Your task to perform on an android device: add a contact Image 0: 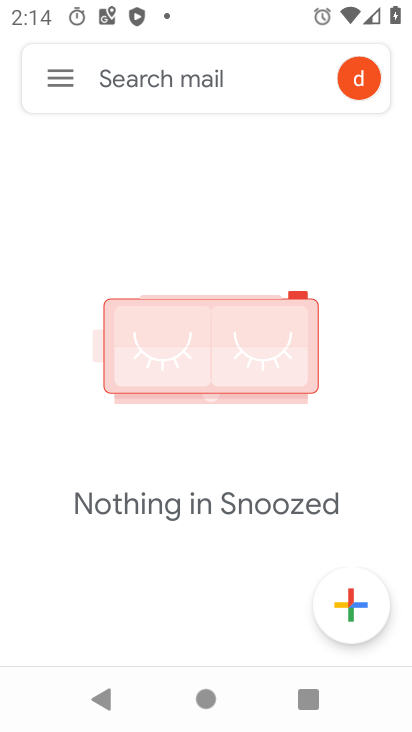
Step 0: press home button
Your task to perform on an android device: add a contact Image 1: 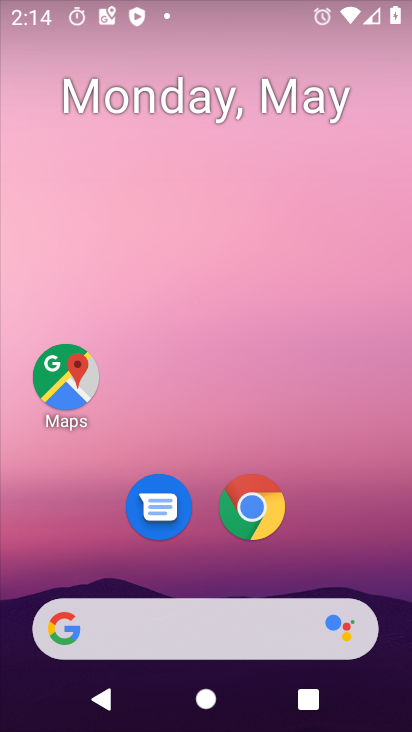
Step 1: drag from (238, 627) to (246, 60)
Your task to perform on an android device: add a contact Image 2: 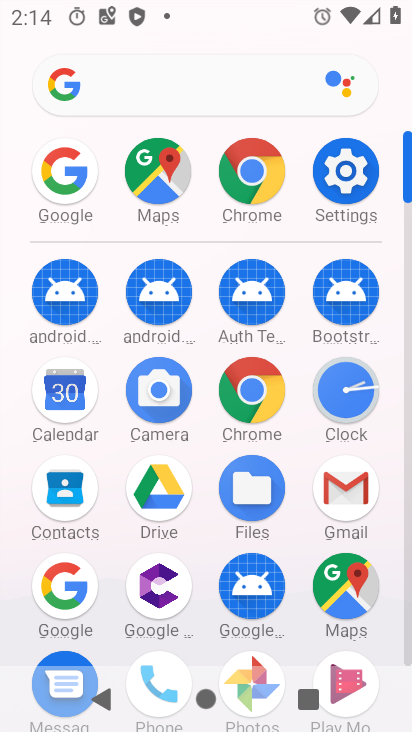
Step 2: click (70, 495)
Your task to perform on an android device: add a contact Image 3: 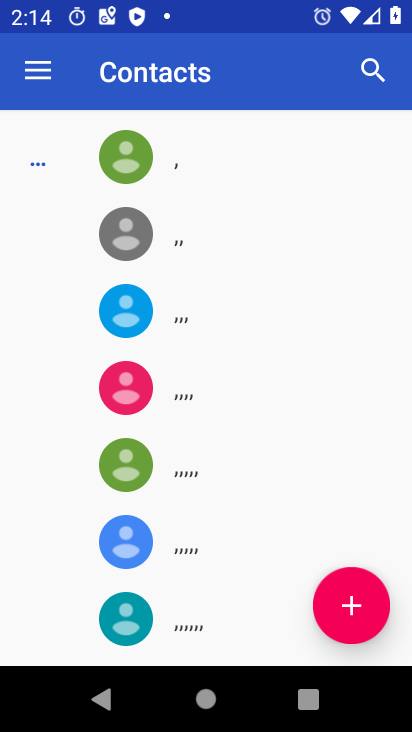
Step 3: click (355, 609)
Your task to perform on an android device: add a contact Image 4: 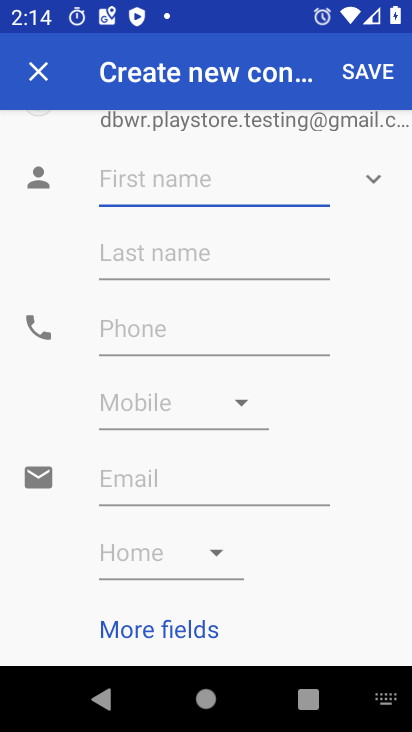
Step 4: type "maharana prtap"
Your task to perform on an android device: add a contact Image 5: 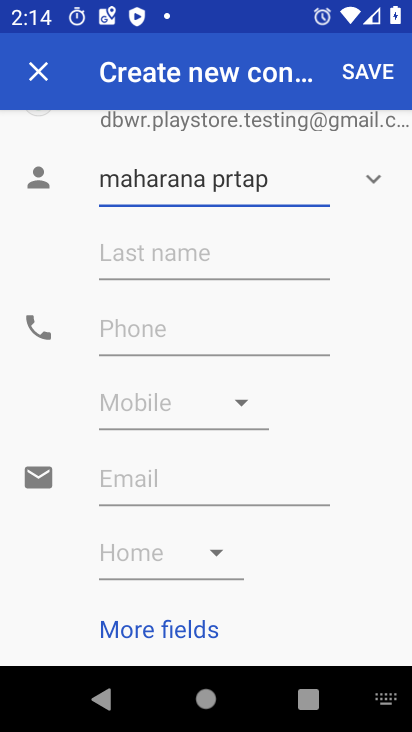
Step 5: click (185, 337)
Your task to perform on an android device: add a contact Image 6: 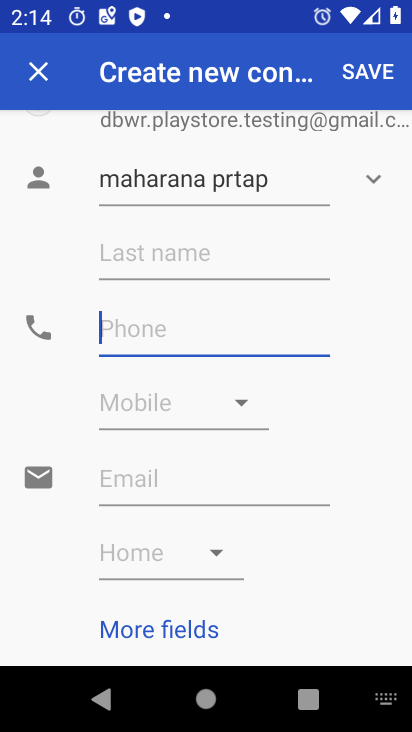
Step 6: type "22222"
Your task to perform on an android device: add a contact Image 7: 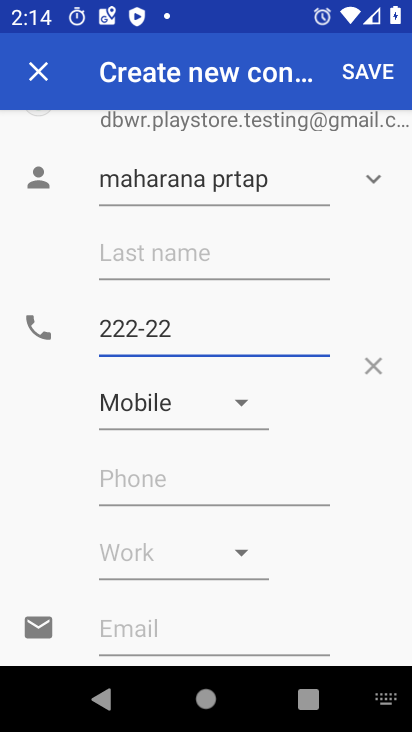
Step 7: click (372, 68)
Your task to perform on an android device: add a contact Image 8: 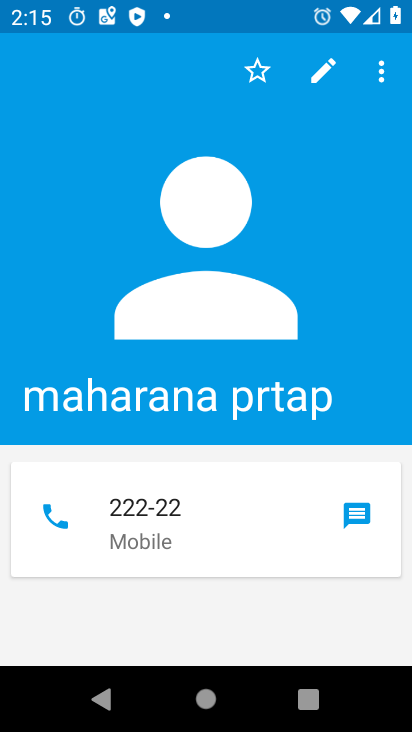
Step 8: task complete